Your task to perform on an android device: turn off javascript in the chrome app Image 0: 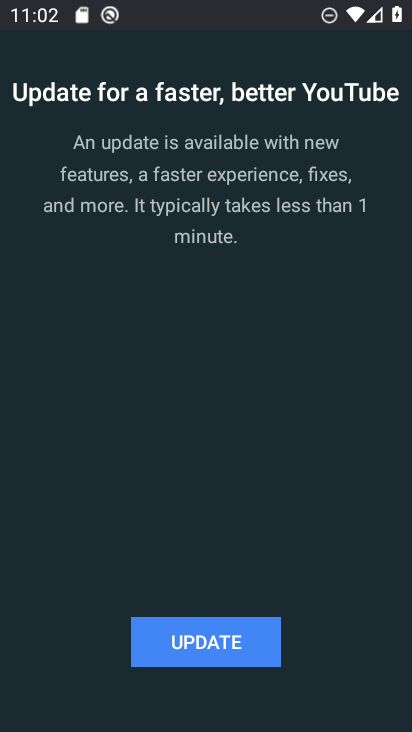
Step 0: press home button
Your task to perform on an android device: turn off javascript in the chrome app Image 1: 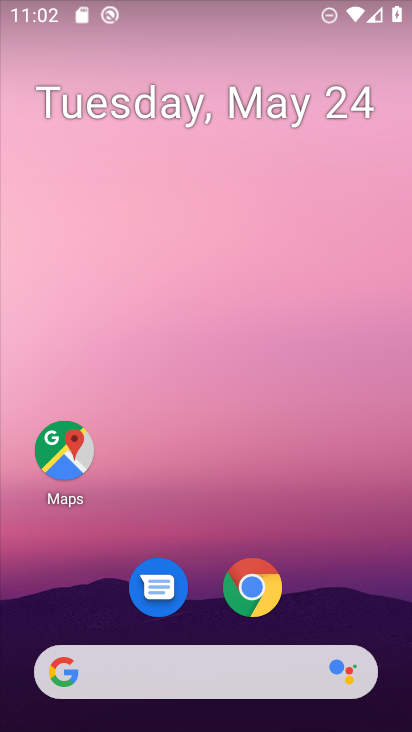
Step 1: drag from (200, 605) to (271, 182)
Your task to perform on an android device: turn off javascript in the chrome app Image 2: 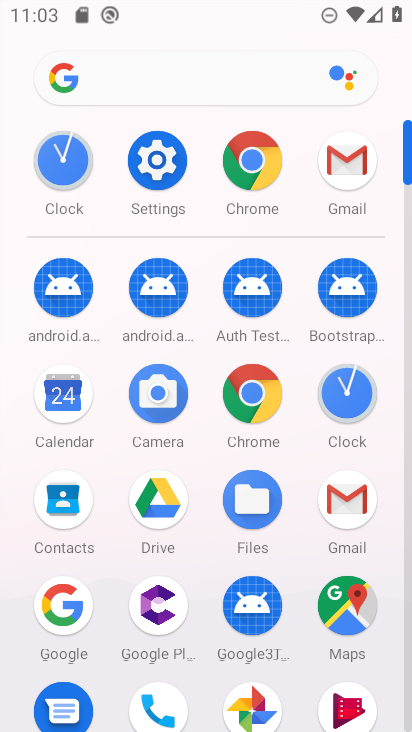
Step 2: click (247, 412)
Your task to perform on an android device: turn off javascript in the chrome app Image 3: 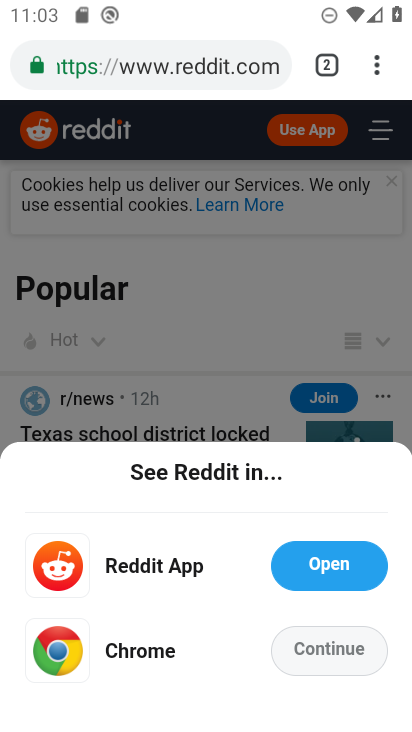
Step 3: drag from (381, 55) to (189, 633)
Your task to perform on an android device: turn off javascript in the chrome app Image 4: 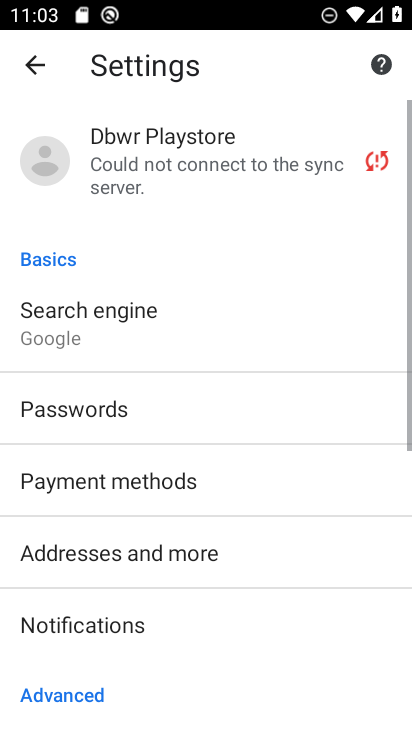
Step 4: drag from (182, 628) to (232, 316)
Your task to perform on an android device: turn off javascript in the chrome app Image 5: 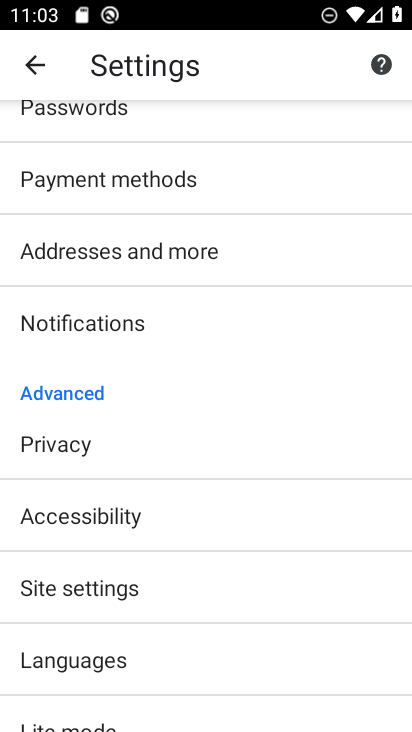
Step 5: click (161, 598)
Your task to perform on an android device: turn off javascript in the chrome app Image 6: 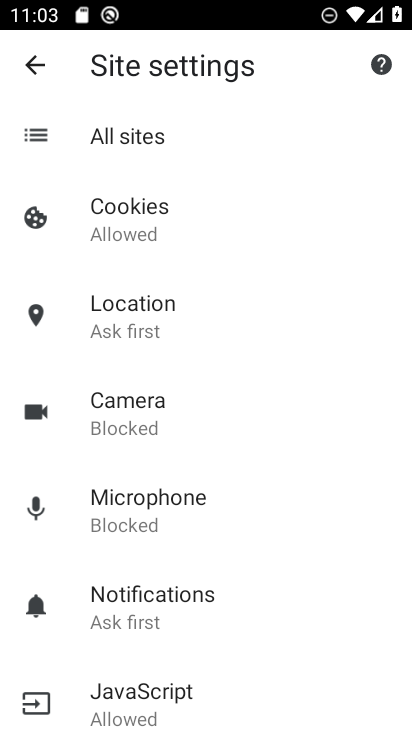
Step 6: drag from (165, 664) to (208, 437)
Your task to perform on an android device: turn off javascript in the chrome app Image 7: 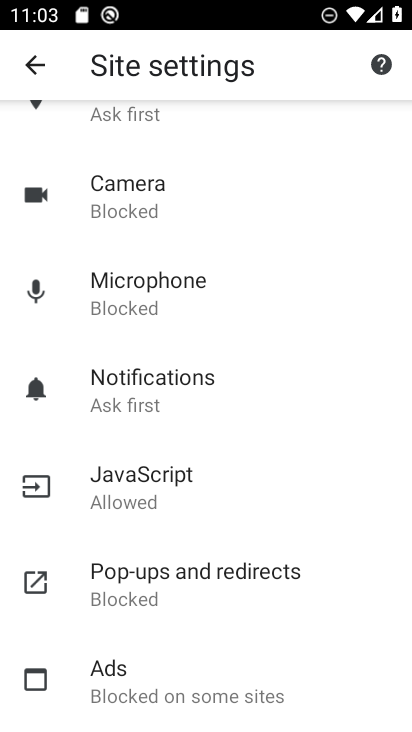
Step 7: click (202, 480)
Your task to perform on an android device: turn off javascript in the chrome app Image 8: 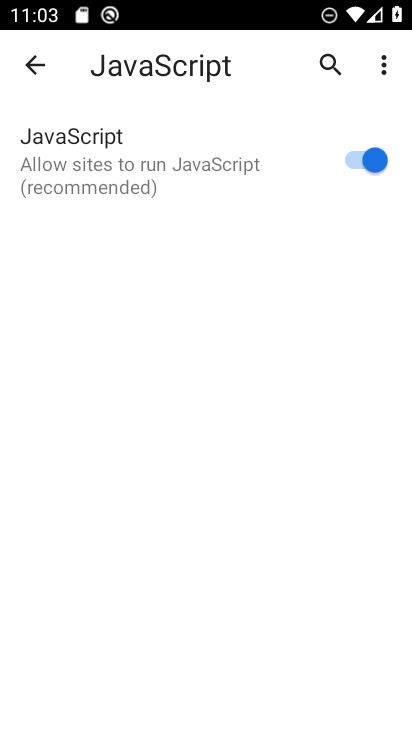
Step 8: click (311, 169)
Your task to perform on an android device: turn off javascript in the chrome app Image 9: 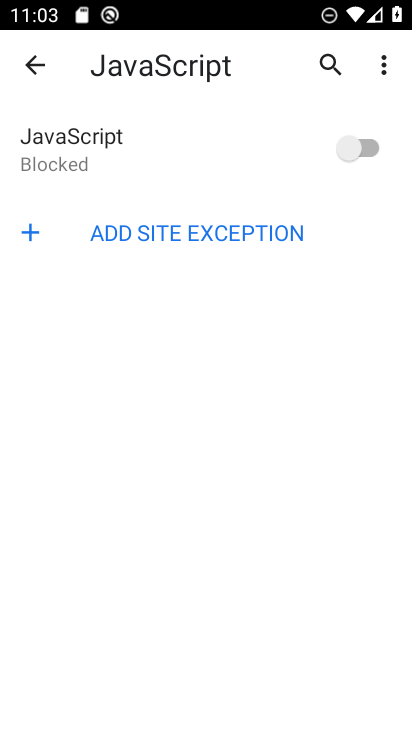
Step 9: task complete